Your task to perform on an android device: delete location history Image 0: 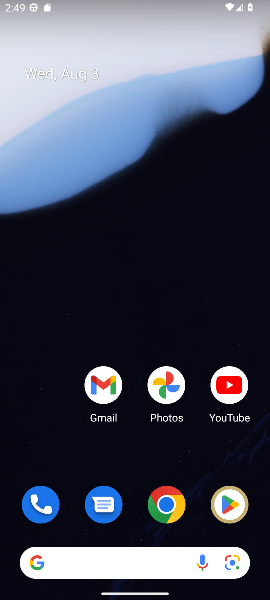
Step 0: drag from (141, 388) to (148, 11)
Your task to perform on an android device: delete location history Image 1: 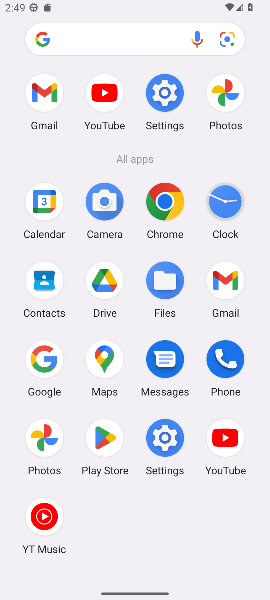
Step 1: click (98, 352)
Your task to perform on an android device: delete location history Image 2: 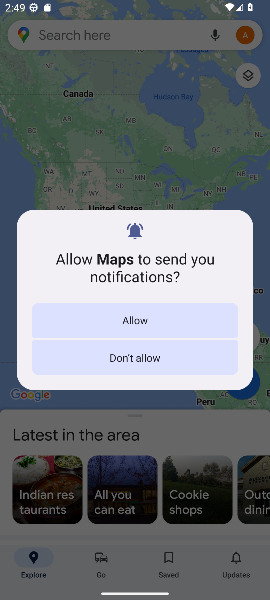
Step 2: click (110, 370)
Your task to perform on an android device: delete location history Image 3: 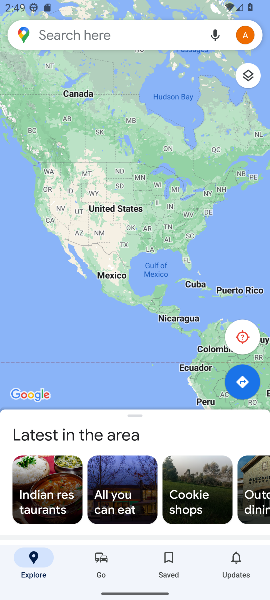
Step 3: click (247, 33)
Your task to perform on an android device: delete location history Image 4: 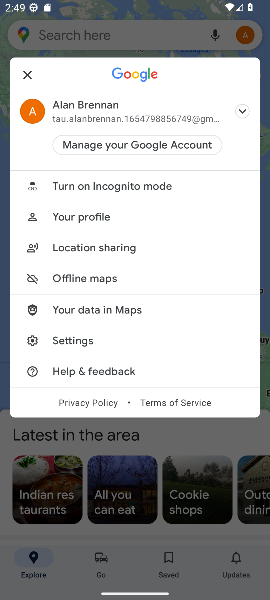
Step 4: click (96, 334)
Your task to perform on an android device: delete location history Image 5: 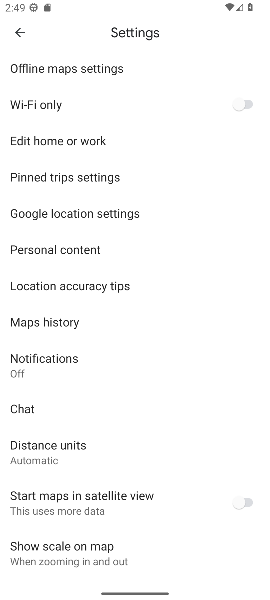
Step 5: click (63, 331)
Your task to perform on an android device: delete location history Image 6: 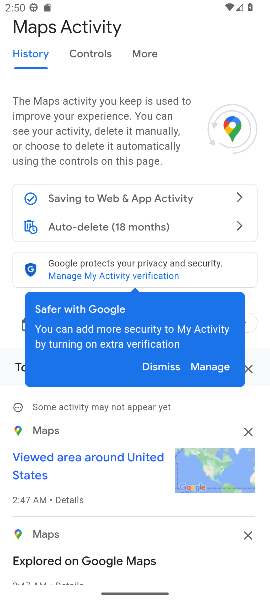
Step 6: click (203, 370)
Your task to perform on an android device: delete location history Image 7: 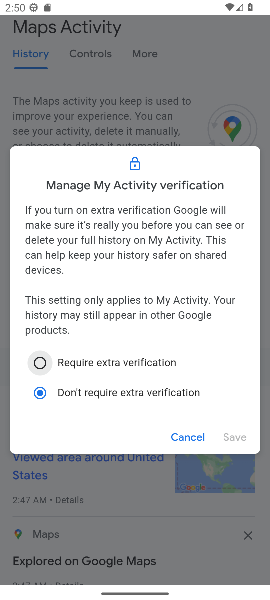
Step 7: click (184, 435)
Your task to perform on an android device: delete location history Image 8: 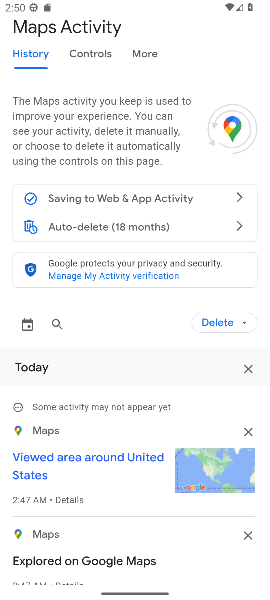
Step 8: click (223, 314)
Your task to perform on an android device: delete location history Image 9: 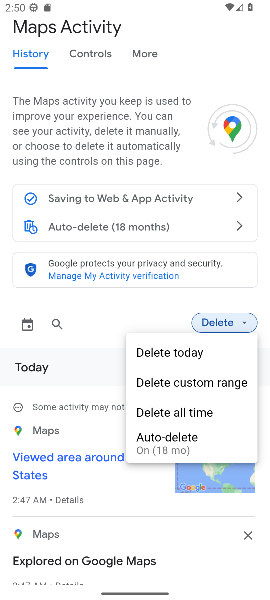
Step 9: click (204, 412)
Your task to perform on an android device: delete location history Image 10: 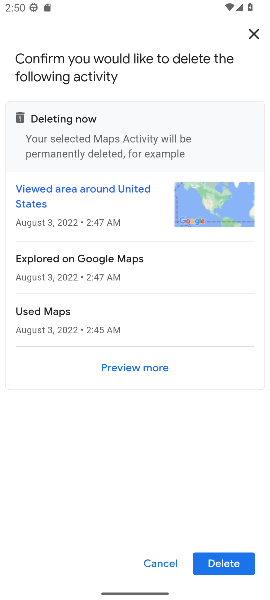
Step 10: click (255, 564)
Your task to perform on an android device: delete location history Image 11: 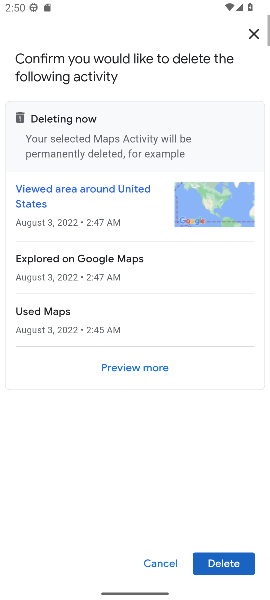
Step 11: click (242, 572)
Your task to perform on an android device: delete location history Image 12: 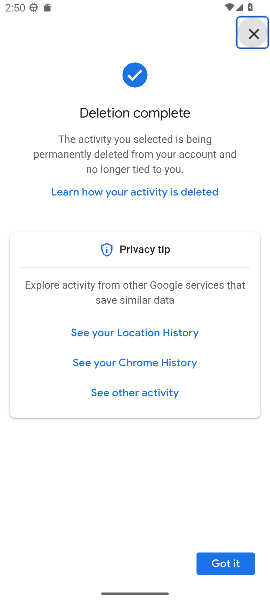
Step 12: task complete